Your task to perform on an android device: turn on javascript in the chrome app Image 0: 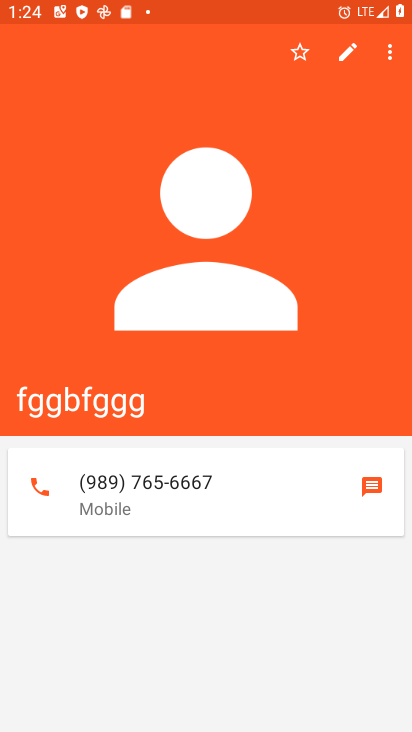
Step 0: press home button
Your task to perform on an android device: turn on javascript in the chrome app Image 1: 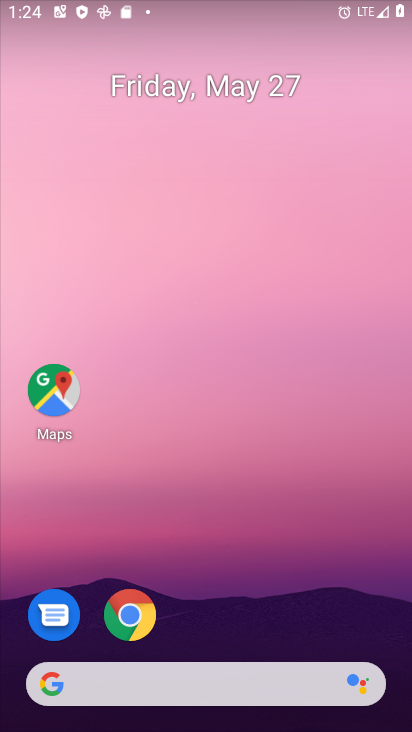
Step 1: drag from (284, 681) to (338, 11)
Your task to perform on an android device: turn on javascript in the chrome app Image 2: 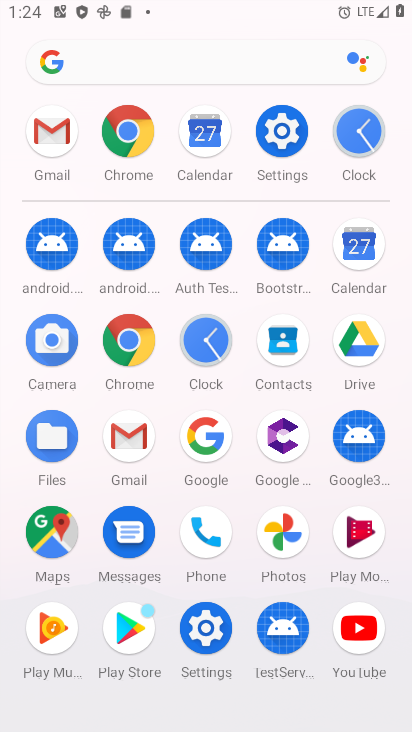
Step 2: click (147, 340)
Your task to perform on an android device: turn on javascript in the chrome app Image 3: 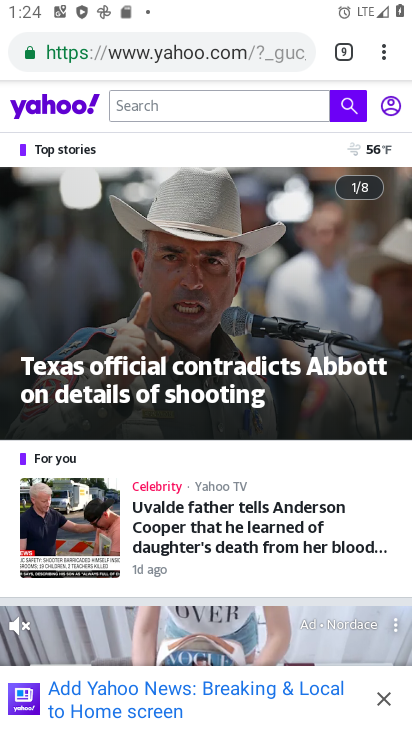
Step 3: drag from (383, 52) to (206, 624)
Your task to perform on an android device: turn on javascript in the chrome app Image 4: 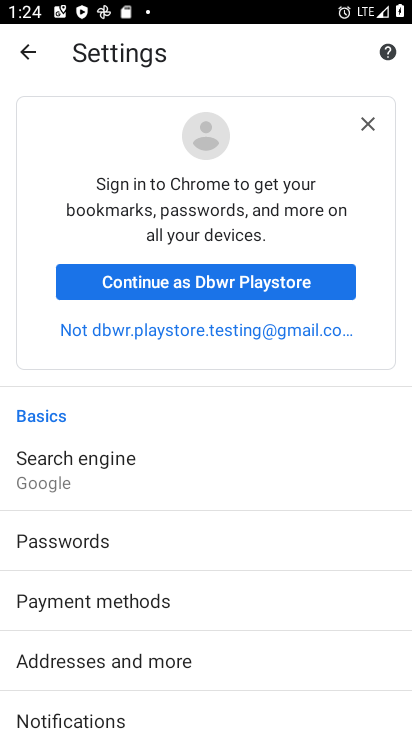
Step 4: drag from (206, 624) to (269, 103)
Your task to perform on an android device: turn on javascript in the chrome app Image 5: 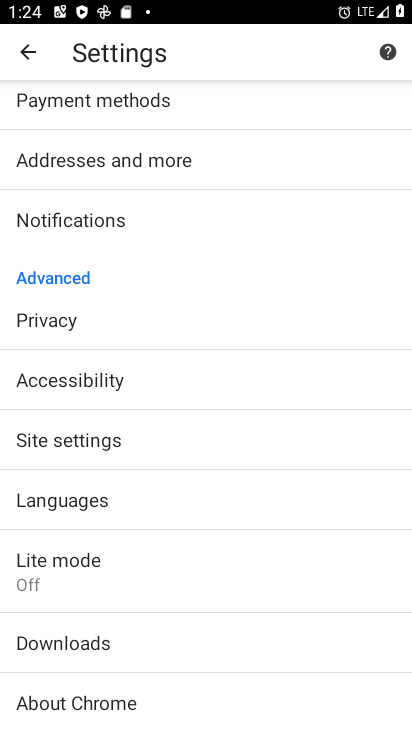
Step 5: click (153, 430)
Your task to perform on an android device: turn on javascript in the chrome app Image 6: 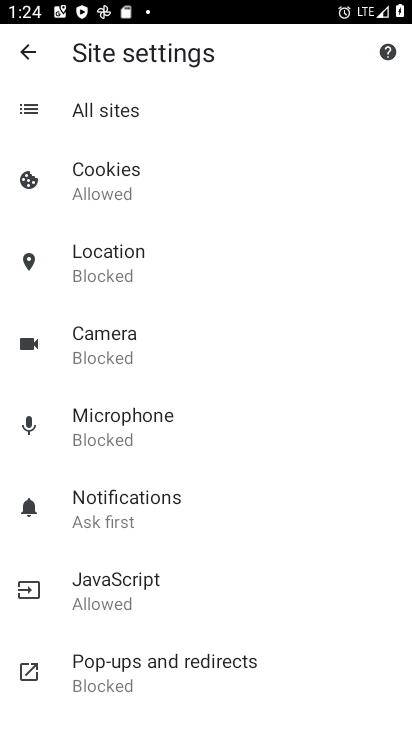
Step 6: click (141, 591)
Your task to perform on an android device: turn on javascript in the chrome app Image 7: 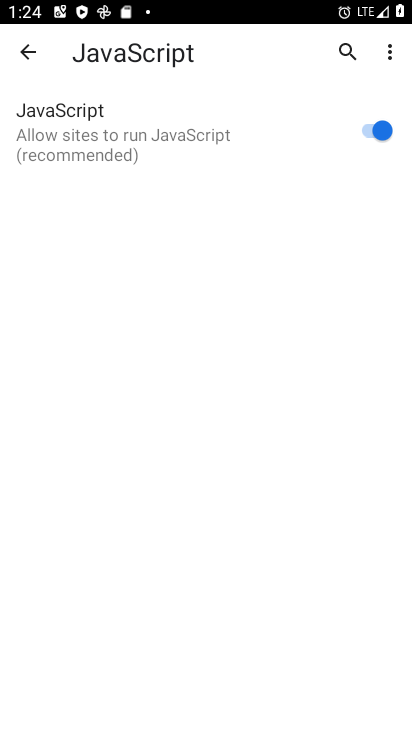
Step 7: task complete